Your task to perform on an android device: Show me recent news Image 0: 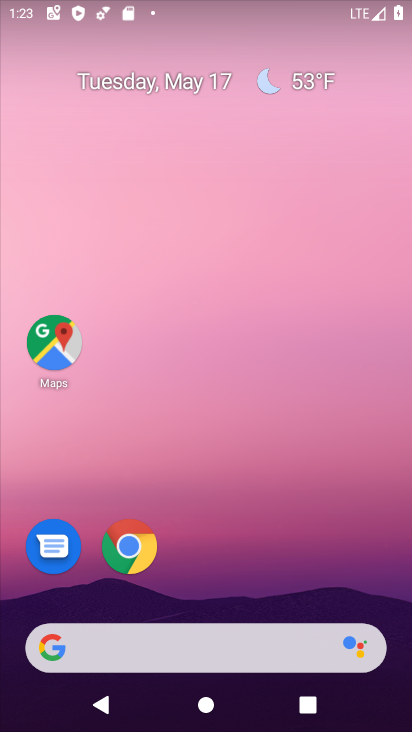
Step 0: drag from (243, 584) to (227, 194)
Your task to perform on an android device: Show me recent news Image 1: 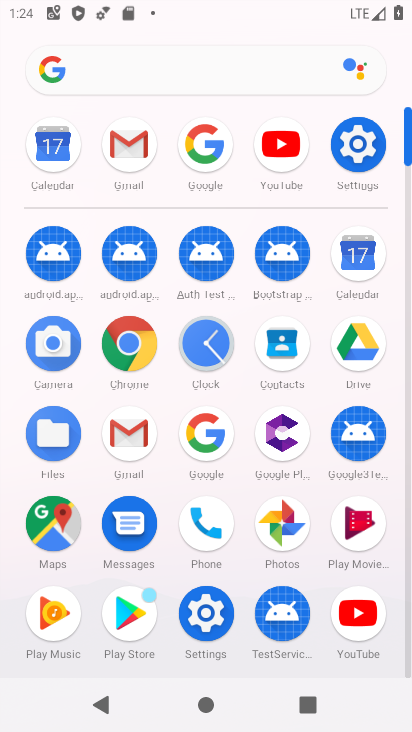
Step 1: click (200, 157)
Your task to perform on an android device: Show me recent news Image 2: 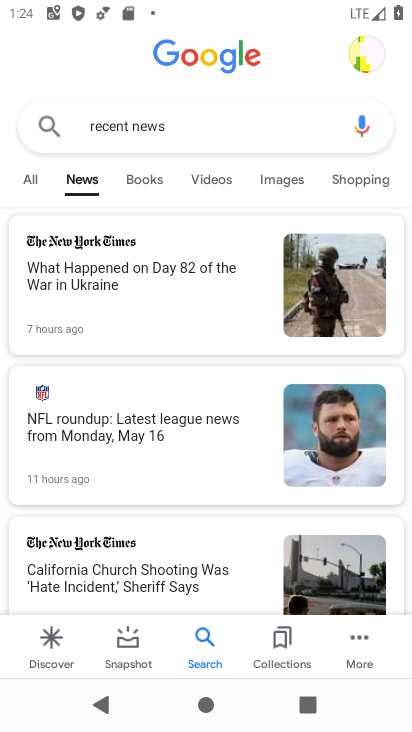
Step 2: task complete